Your task to perform on an android device: read, delete, or share a saved page in the chrome app Image 0: 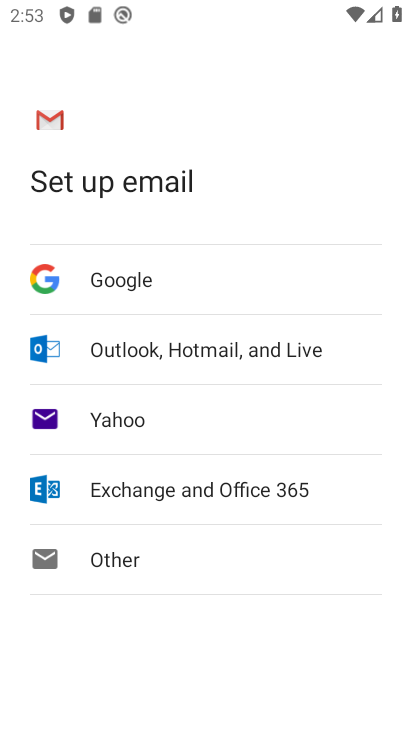
Step 0: press home button
Your task to perform on an android device: read, delete, or share a saved page in the chrome app Image 1: 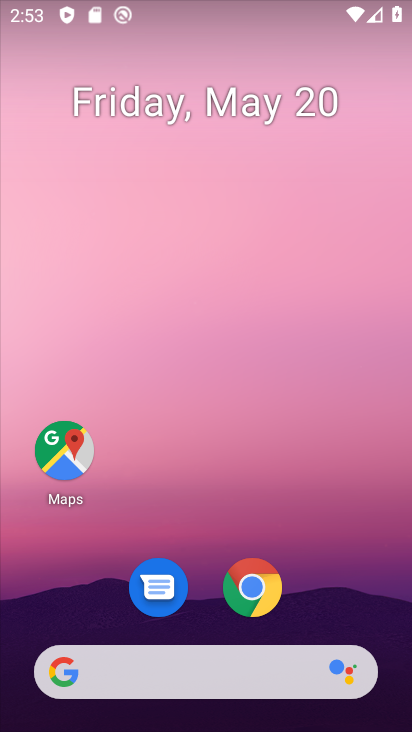
Step 1: click (228, 595)
Your task to perform on an android device: read, delete, or share a saved page in the chrome app Image 2: 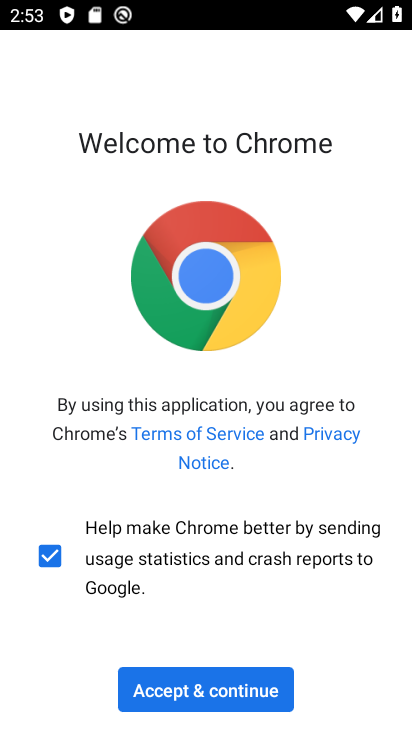
Step 2: click (179, 703)
Your task to perform on an android device: read, delete, or share a saved page in the chrome app Image 3: 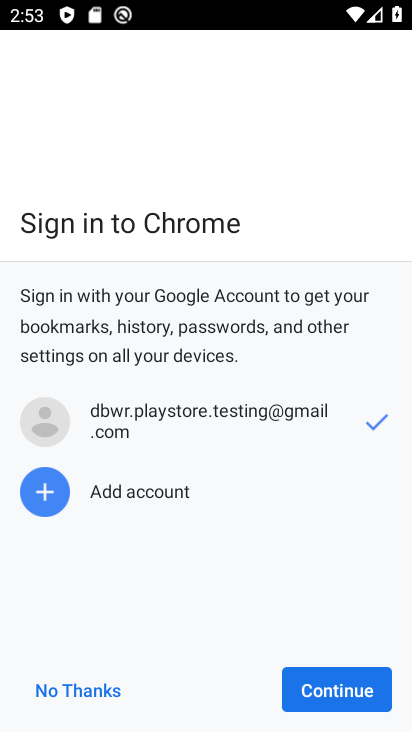
Step 3: click (319, 690)
Your task to perform on an android device: read, delete, or share a saved page in the chrome app Image 4: 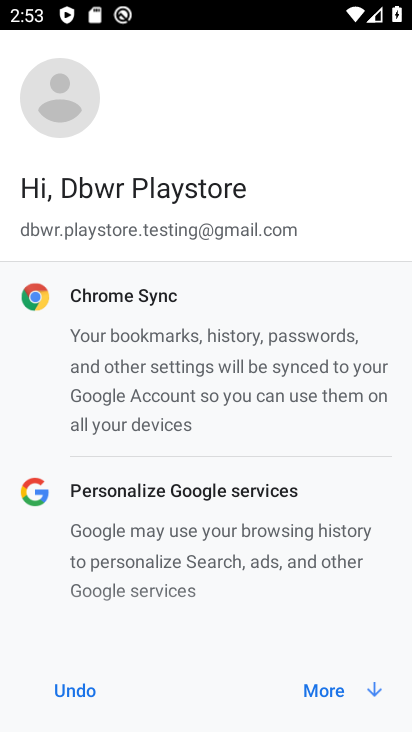
Step 4: click (342, 692)
Your task to perform on an android device: read, delete, or share a saved page in the chrome app Image 5: 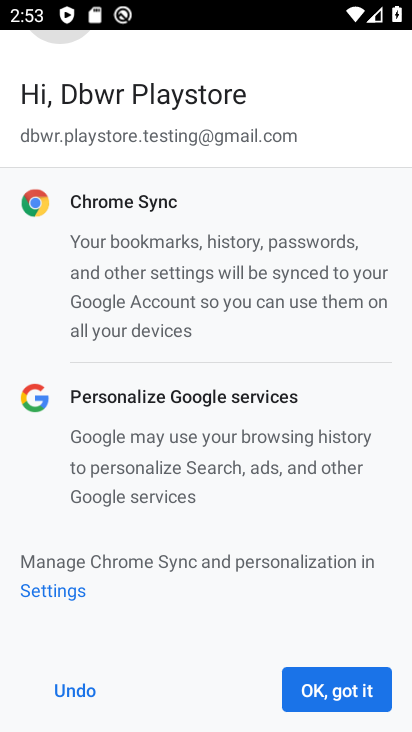
Step 5: click (342, 692)
Your task to perform on an android device: read, delete, or share a saved page in the chrome app Image 6: 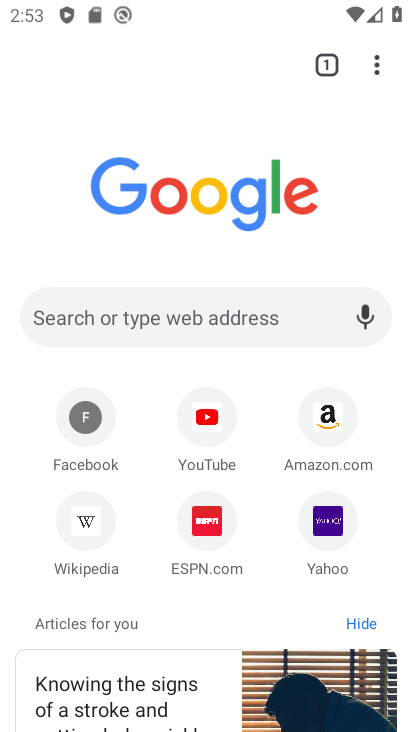
Step 6: click (376, 64)
Your task to perform on an android device: read, delete, or share a saved page in the chrome app Image 7: 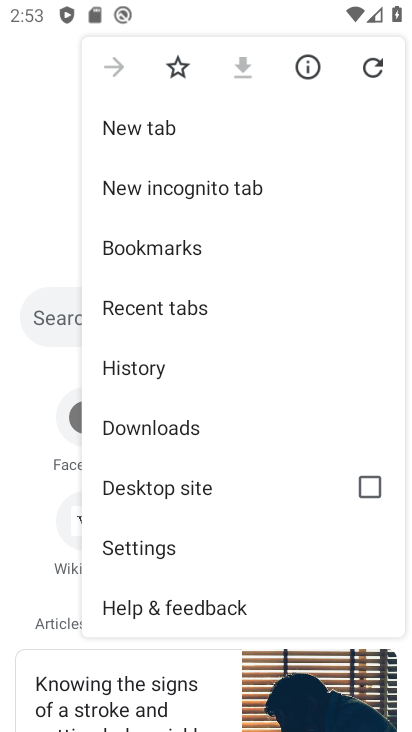
Step 7: click (172, 427)
Your task to perform on an android device: read, delete, or share a saved page in the chrome app Image 8: 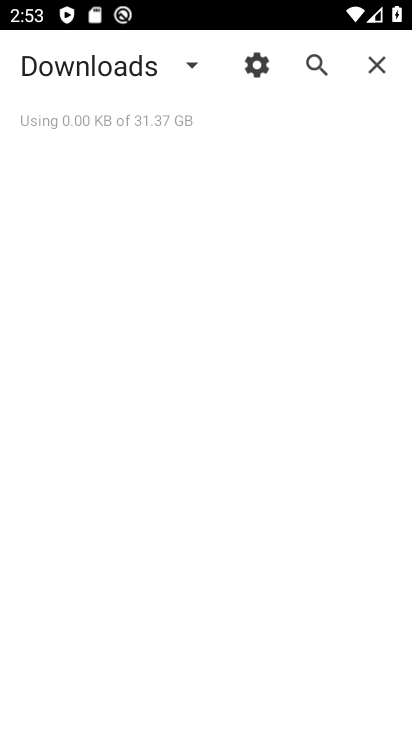
Step 8: task complete